Your task to perform on an android device: Search for vegetarian restaurants on Maps Image 0: 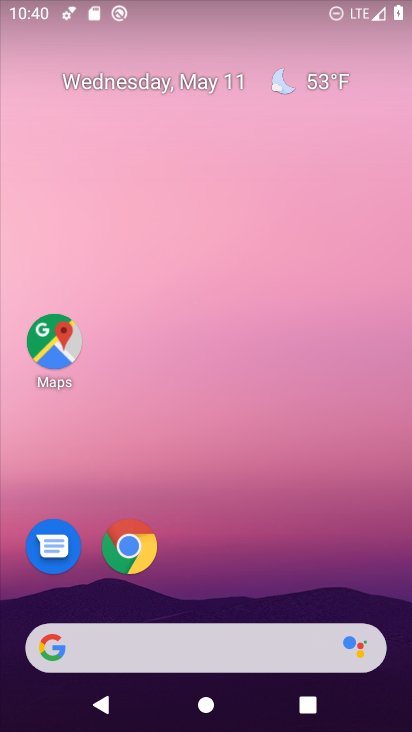
Step 0: drag from (391, 621) to (313, 42)
Your task to perform on an android device: Search for vegetarian restaurants on Maps Image 1: 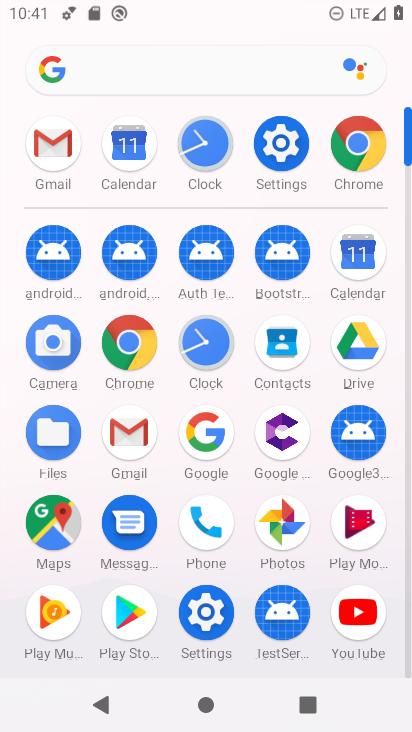
Step 1: click (49, 515)
Your task to perform on an android device: Search for vegetarian restaurants on Maps Image 2: 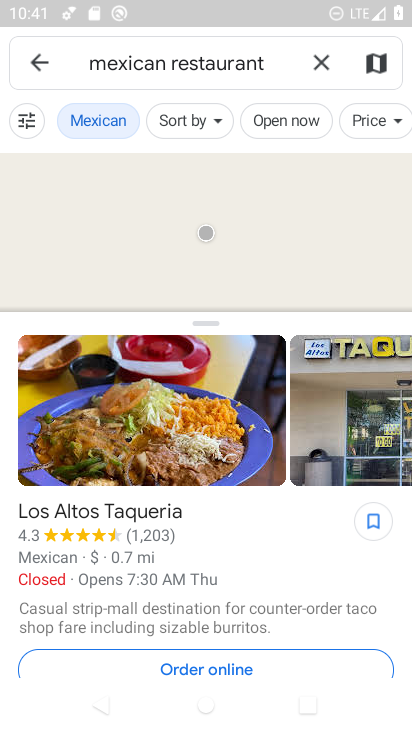
Step 2: click (320, 63)
Your task to perform on an android device: Search for vegetarian restaurants on Maps Image 3: 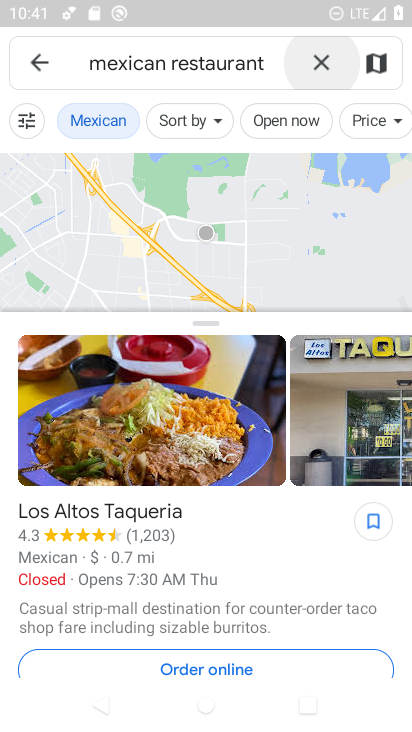
Step 3: click (184, 69)
Your task to perform on an android device: Search for vegetarian restaurants on Maps Image 4: 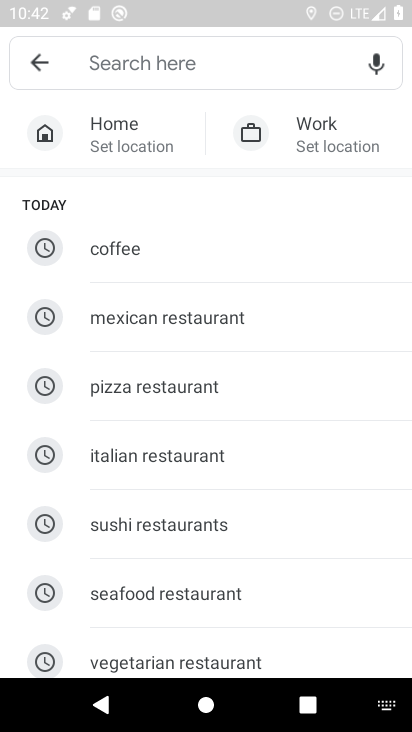
Step 4: click (210, 654)
Your task to perform on an android device: Search for vegetarian restaurants on Maps Image 5: 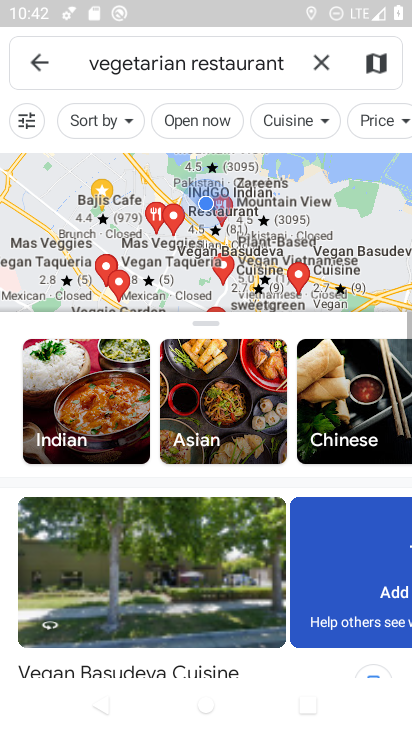
Step 5: task complete